Your task to perform on an android device: turn on priority inbox in the gmail app Image 0: 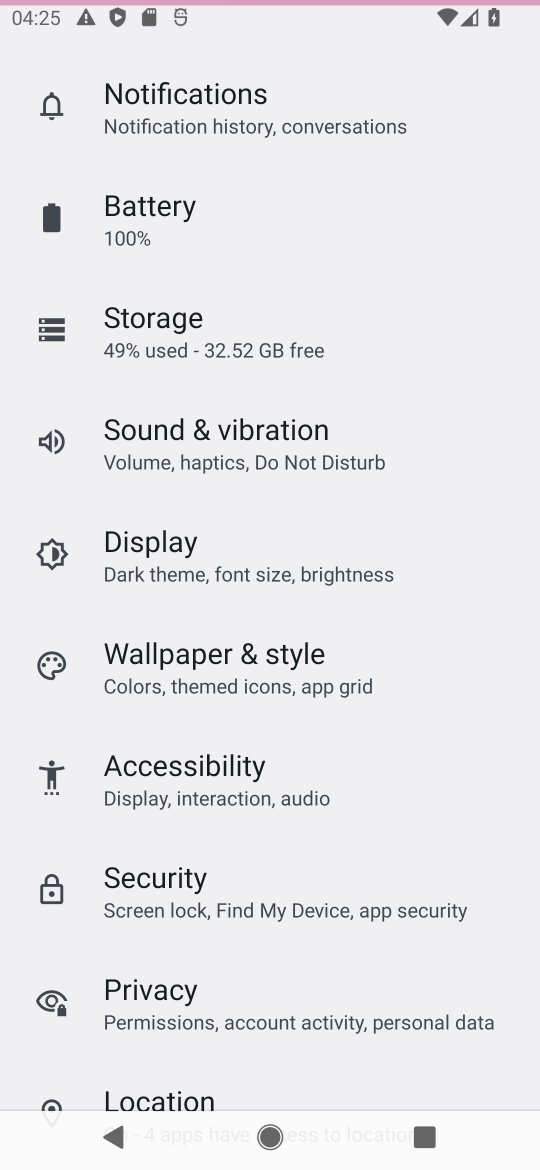
Step 0: press home button
Your task to perform on an android device: turn on priority inbox in the gmail app Image 1: 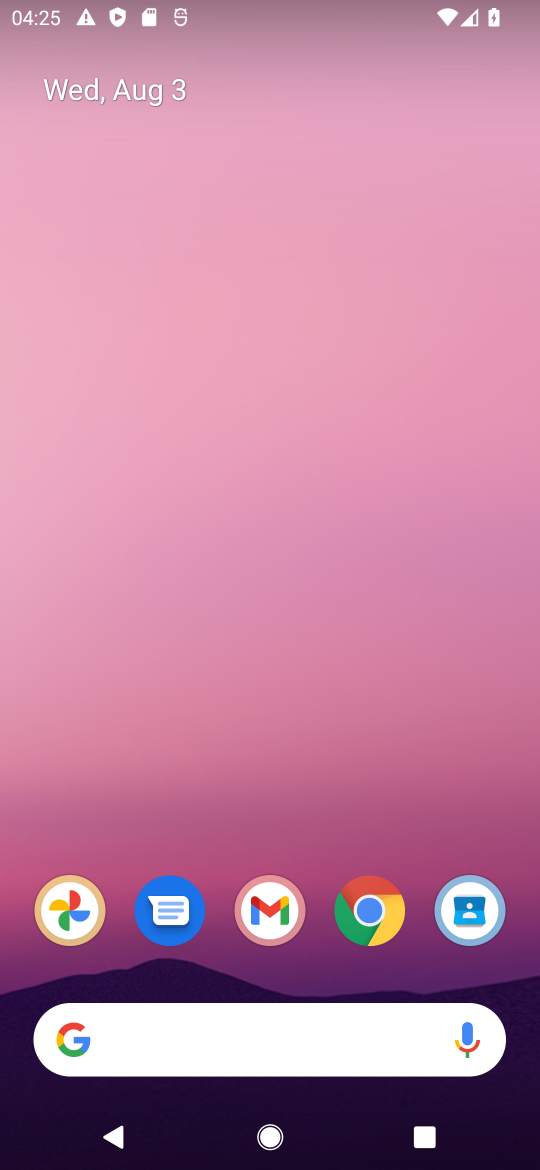
Step 1: click (264, 895)
Your task to perform on an android device: turn on priority inbox in the gmail app Image 2: 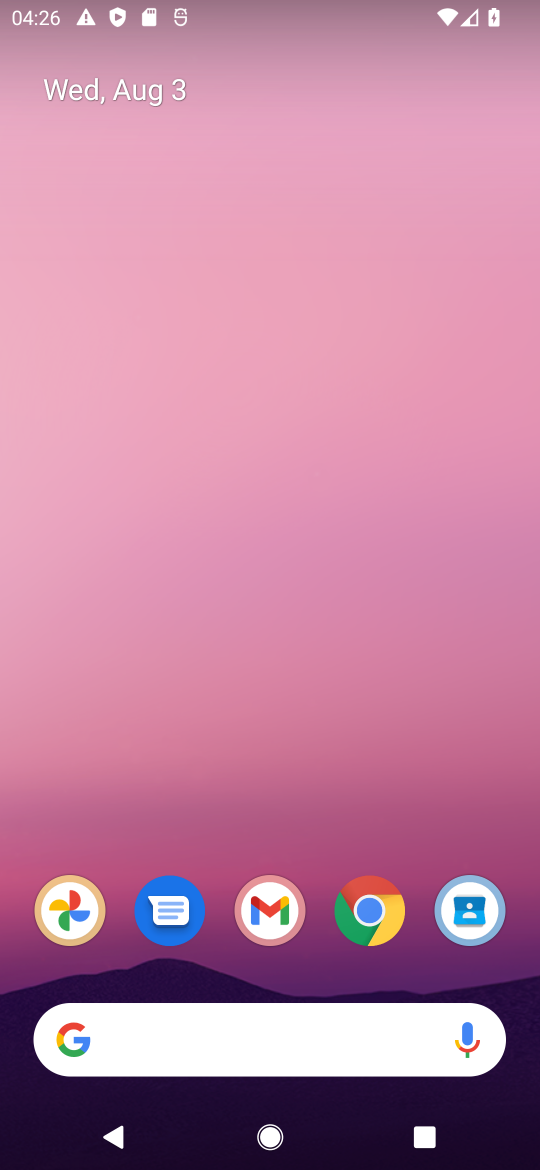
Step 2: click (267, 902)
Your task to perform on an android device: turn on priority inbox in the gmail app Image 3: 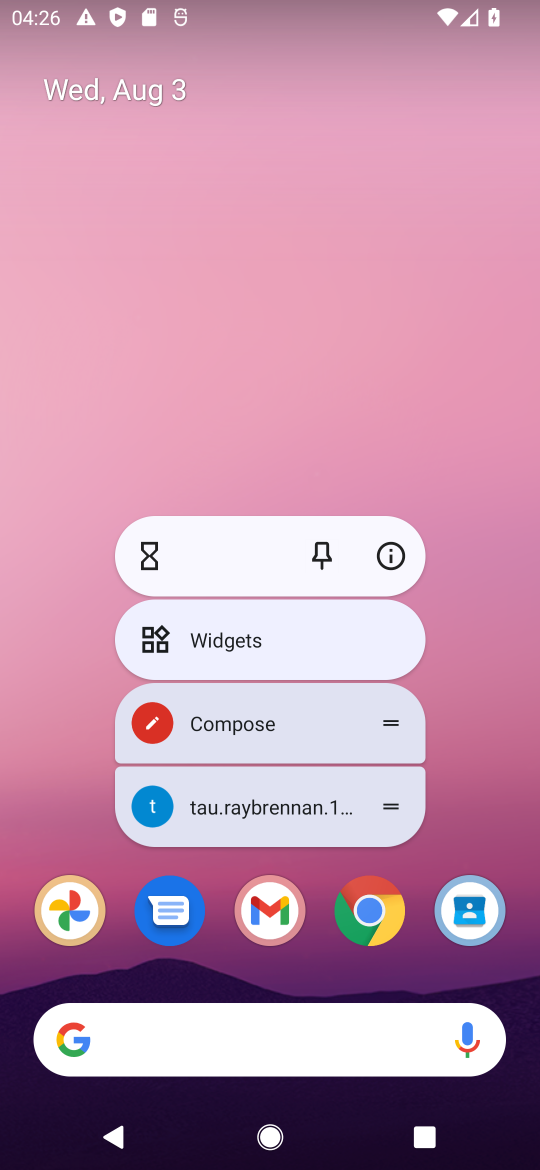
Step 3: click (267, 902)
Your task to perform on an android device: turn on priority inbox in the gmail app Image 4: 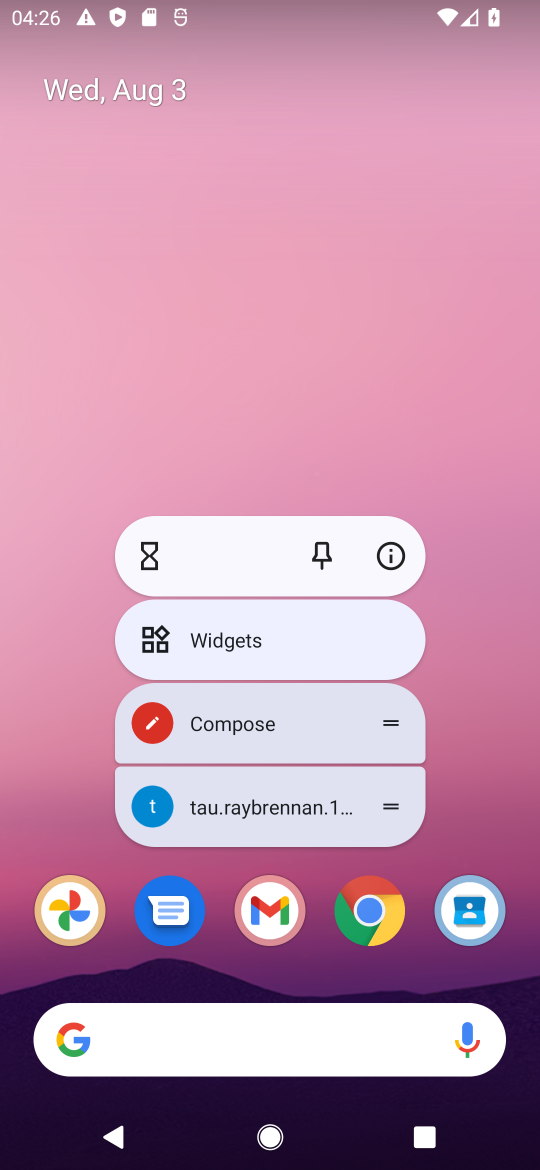
Step 4: click (267, 902)
Your task to perform on an android device: turn on priority inbox in the gmail app Image 5: 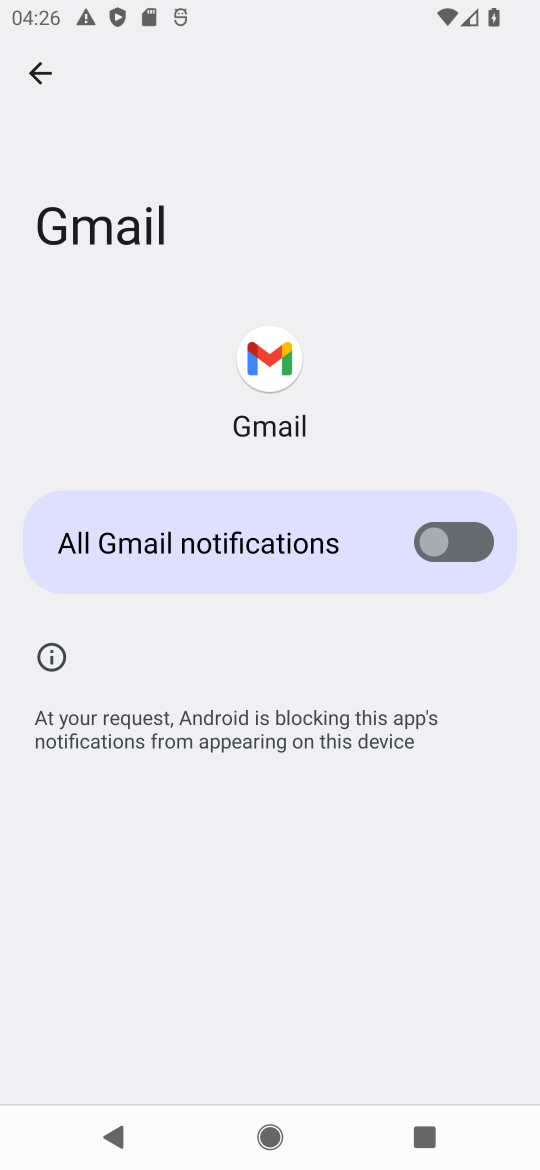
Step 5: click (32, 76)
Your task to perform on an android device: turn on priority inbox in the gmail app Image 6: 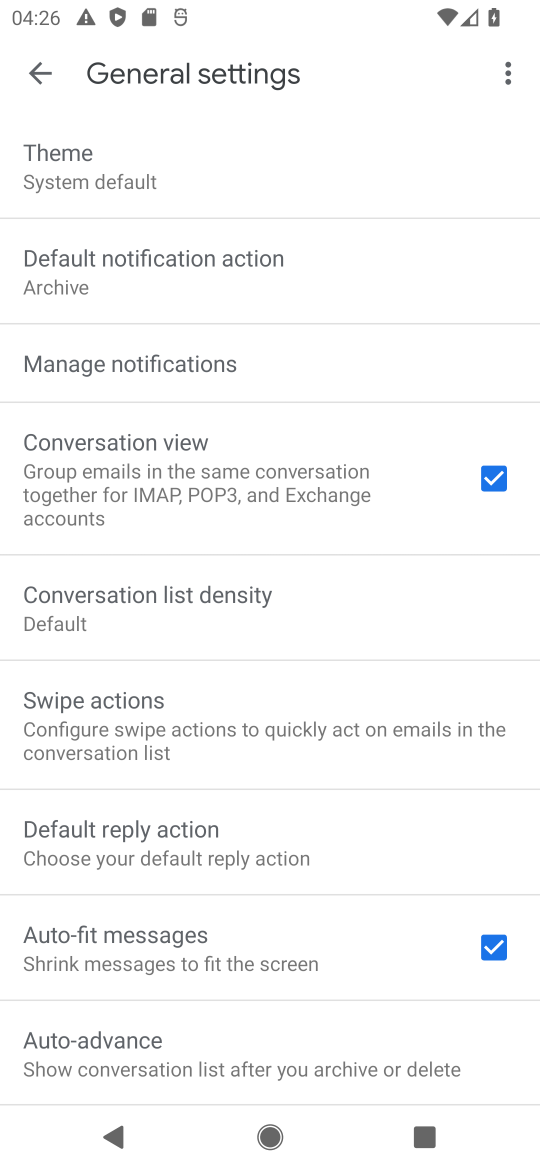
Step 6: click (44, 67)
Your task to perform on an android device: turn on priority inbox in the gmail app Image 7: 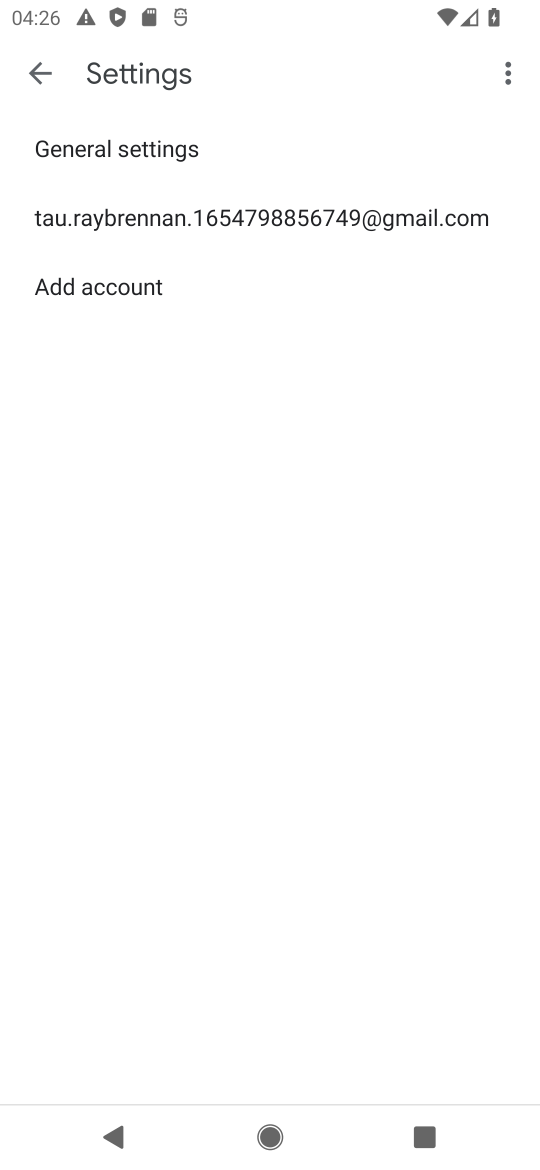
Step 7: click (150, 220)
Your task to perform on an android device: turn on priority inbox in the gmail app Image 8: 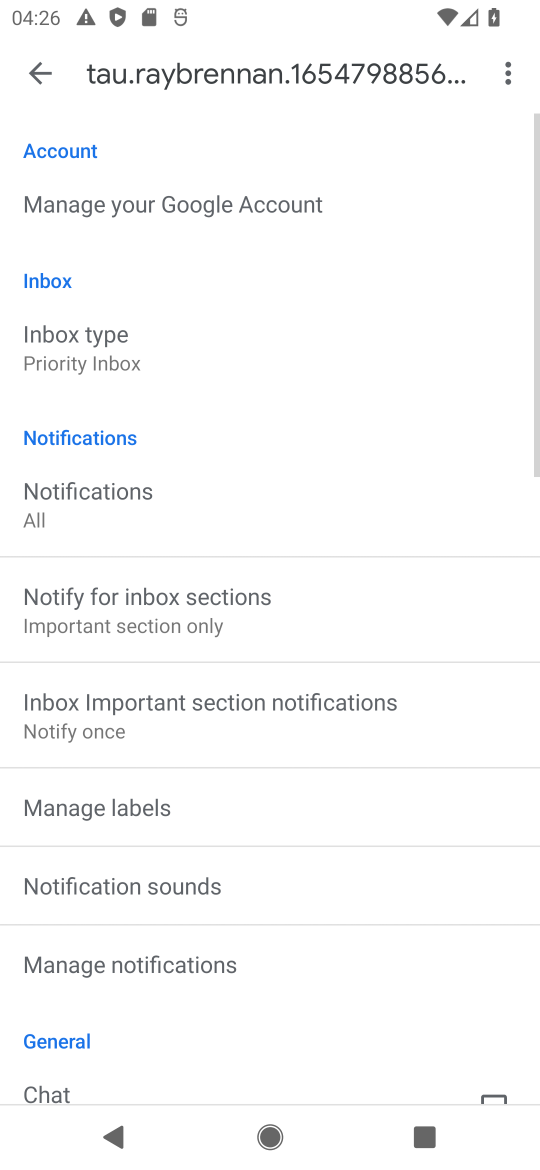
Step 8: click (161, 349)
Your task to perform on an android device: turn on priority inbox in the gmail app Image 9: 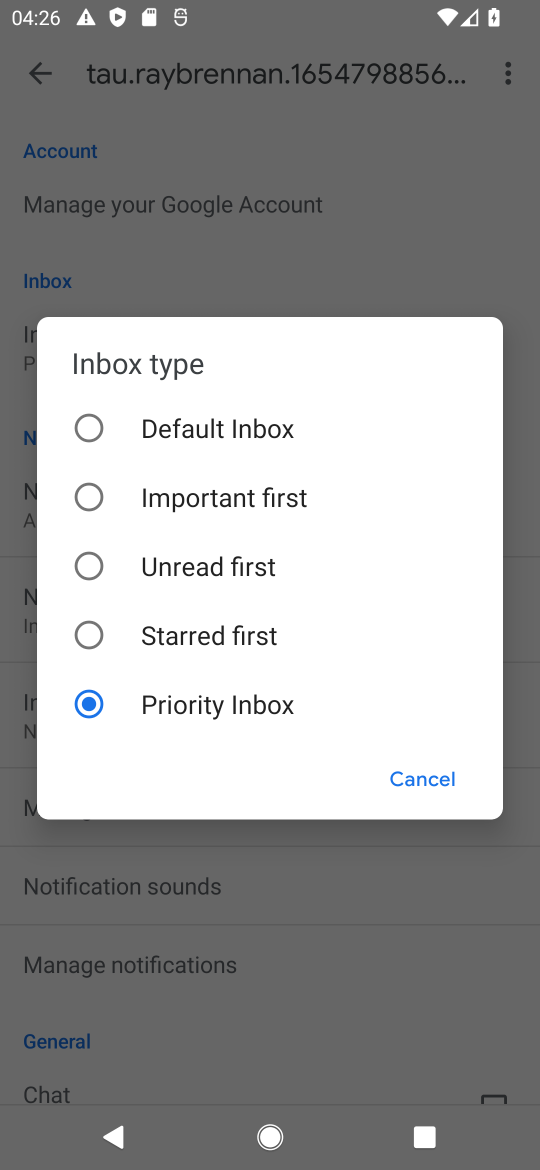
Step 9: click (107, 700)
Your task to perform on an android device: turn on priority inbox in the gmail app Image 10: 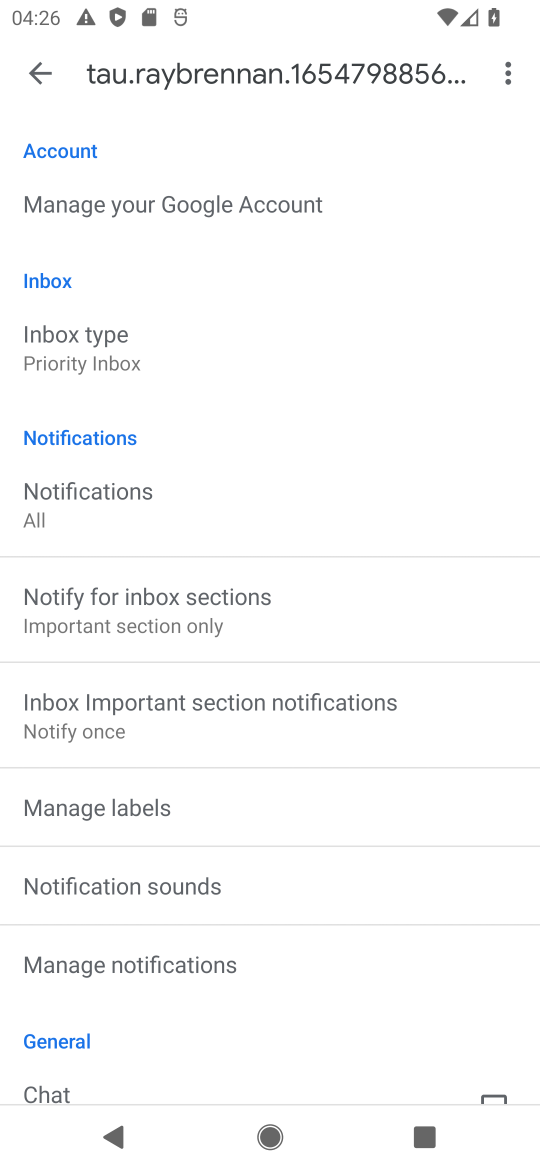
Step 10: task complete